Your task to perform on an android device: Go to Google maps Image 0: 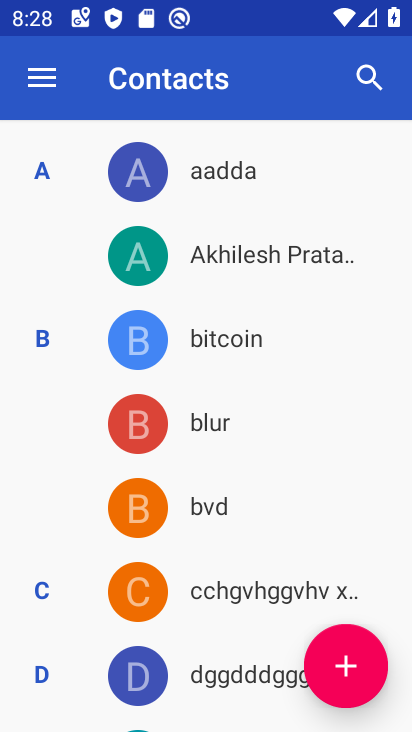
Step 0: press home button
Your task to perform on an android device: Go to Google maps Image 1: 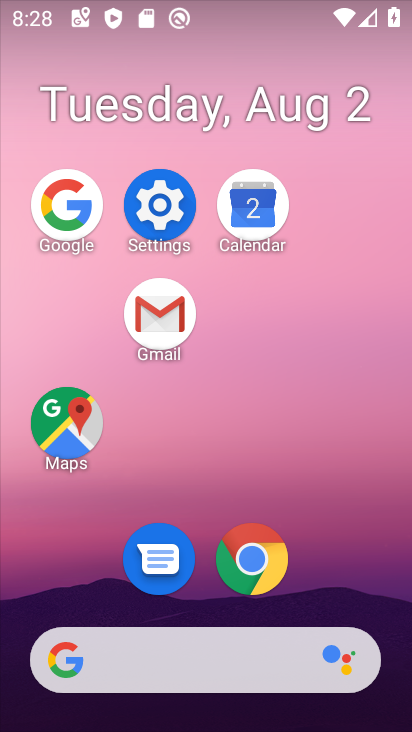
Step 1: click (57, 410)
Your task to perform on an android device: Go to Google maps Image 2: 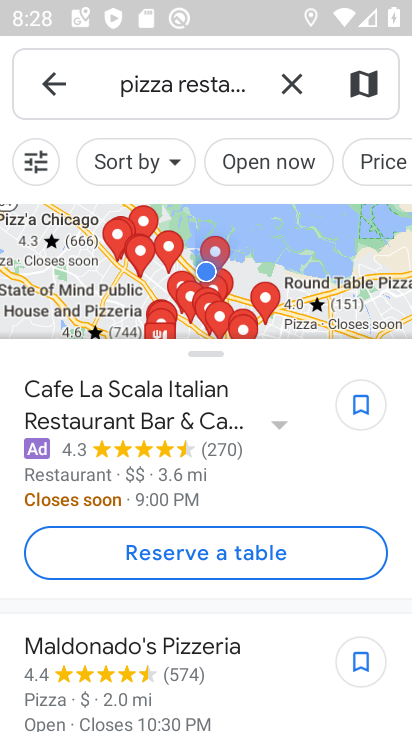
Step 2: task complete